Your task to perform on an android device: Open display settings Image 0: 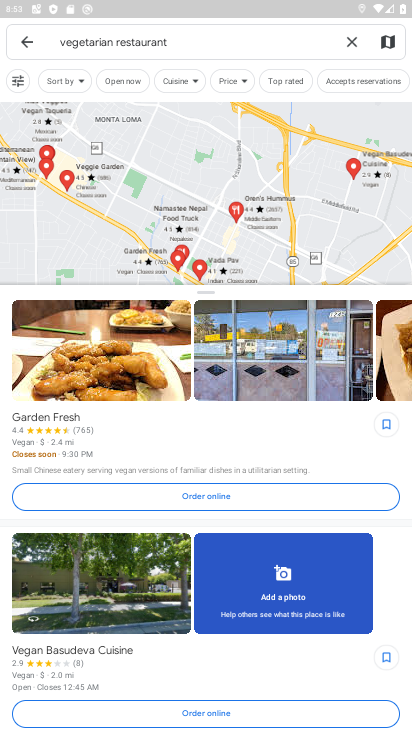
Step 0: drag from (197, 676) to (234, 384)
Your task to perform on an android device: Open display settings Image 1: 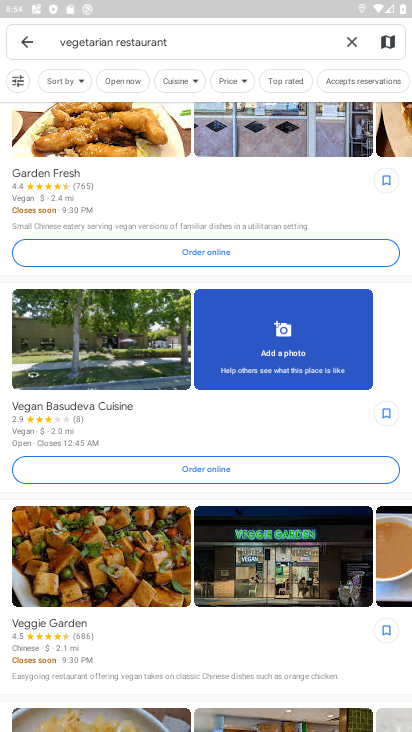
Step 1: drag from (271, 676) to (349, 482)
Your task to perform on an android device: Open display settings Image 2: 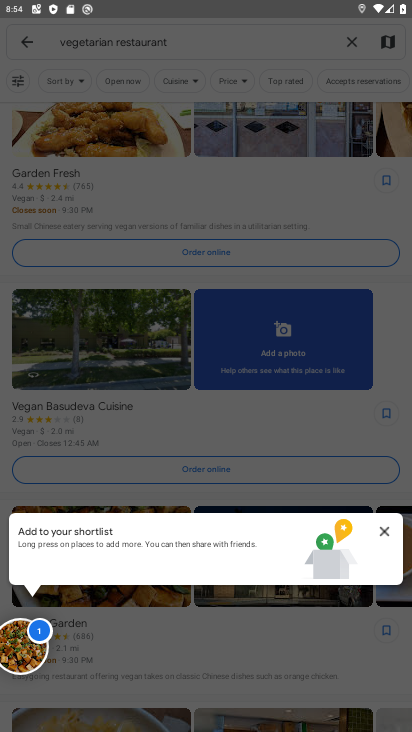
Step 2: press home button
Your task to perform on an android device: Open display settings Image 3: 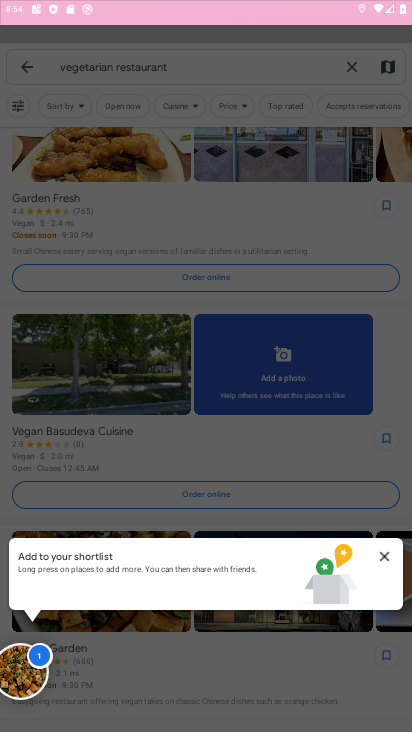
Step 3: drag from (200, 624) to (215, 205)
Your task to perform on an android device: Open display settings Image 4: 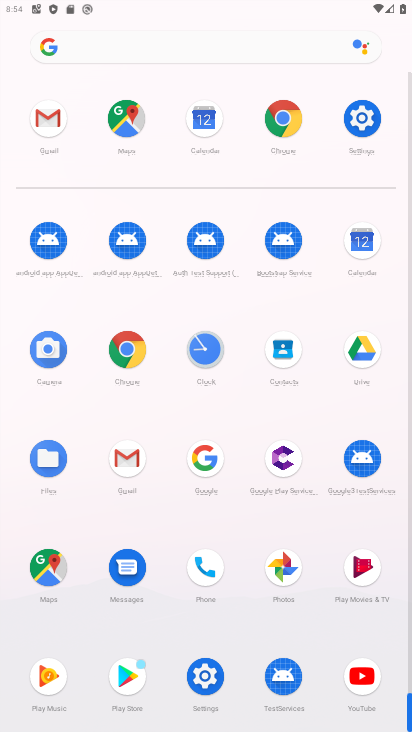
Step 4: click (195, 673)
Your task to perform on an android device: Open display settings Image 5: 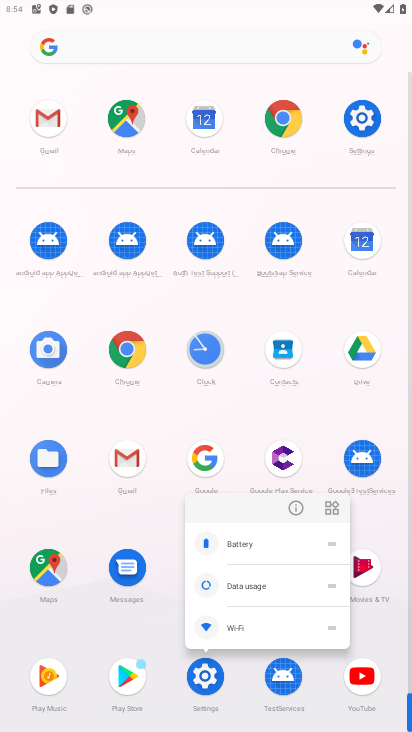
Step 5: click (288, 505)
Your task to perform on an android device: Open display settings Image 6: 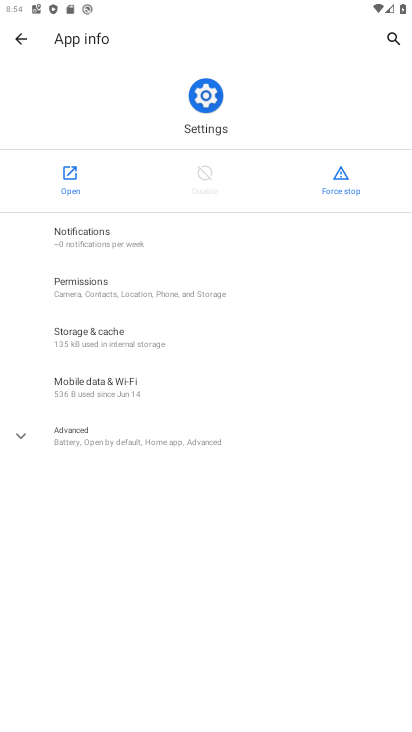
Step 6: click (56, 174)
Your task to perform on an android device: Open display settings Image 7: 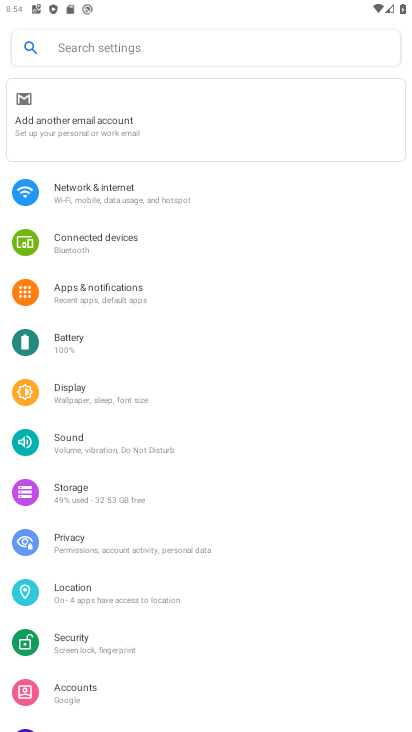
Step 7: click (99, 388)
Your task to perform on an android device: Open display settings Image 8: 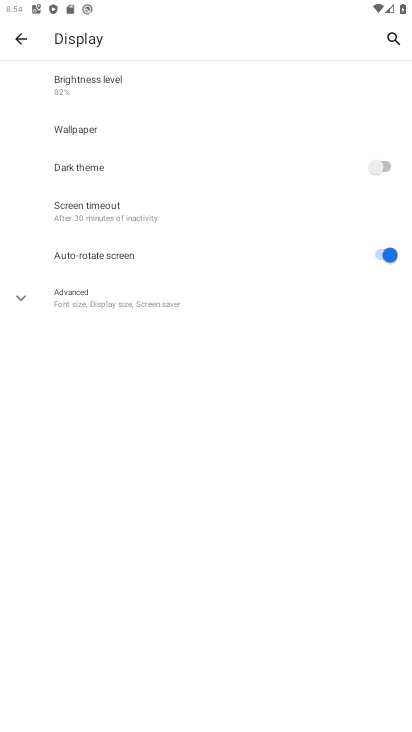
Step 8: task complete